Your task to perform on an android device: turn off notifications settings in the gmail app Image 0: 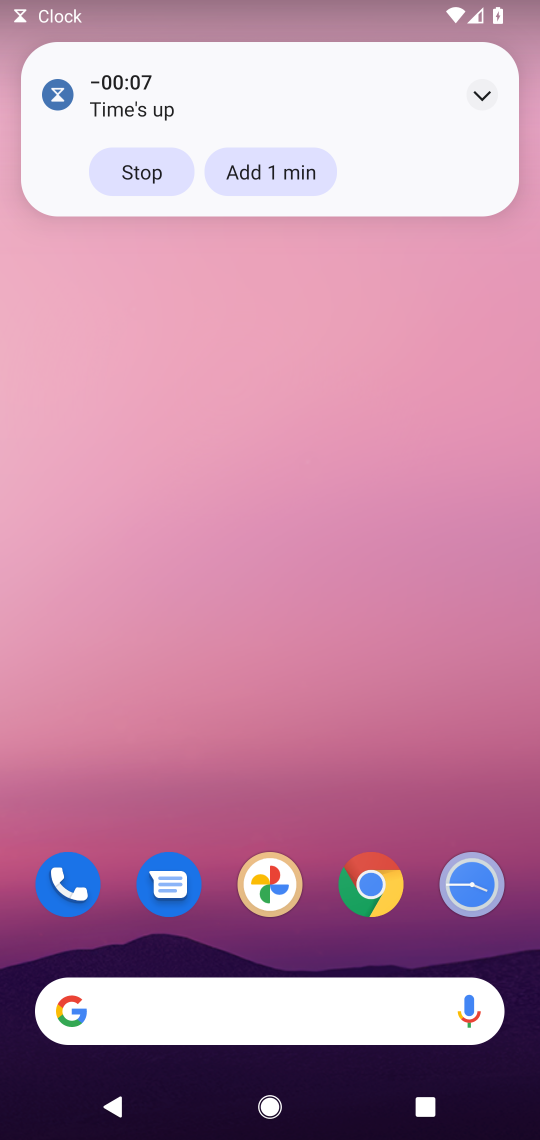
Step 0: click (133, 164)
Your task to perform on an android device: turn off notifications settings in the gmail app Image 1: 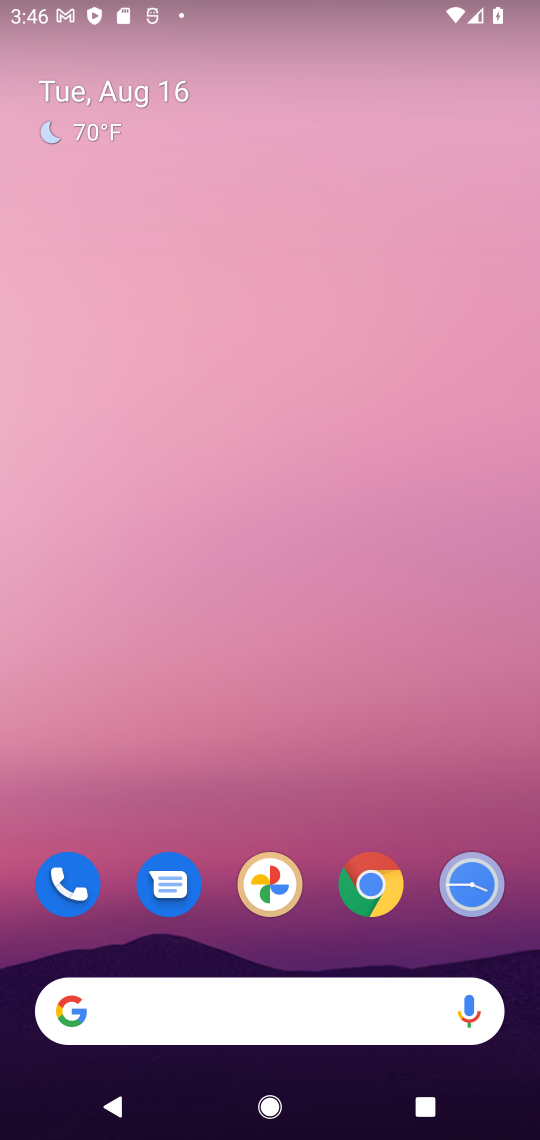
Step 1: drag from (267, 775) to (271, 126)
Your task to perform on an android device: turn off notifications settings in the gmail app Image 2: 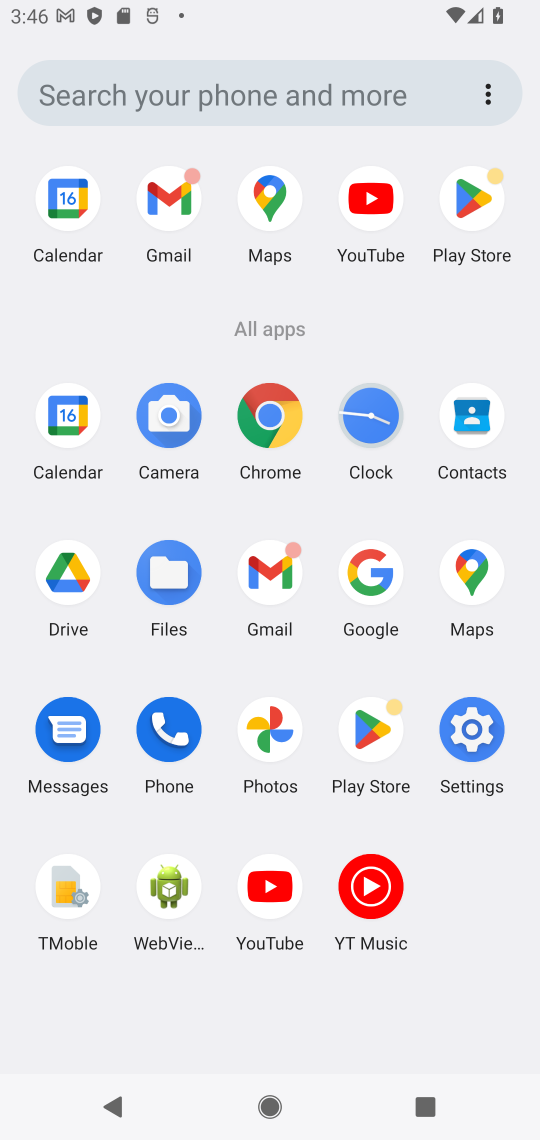
Step 2: click (242, 602)
Your task to perform on an android device: turn off notifications settings in the gmail app Image 3: 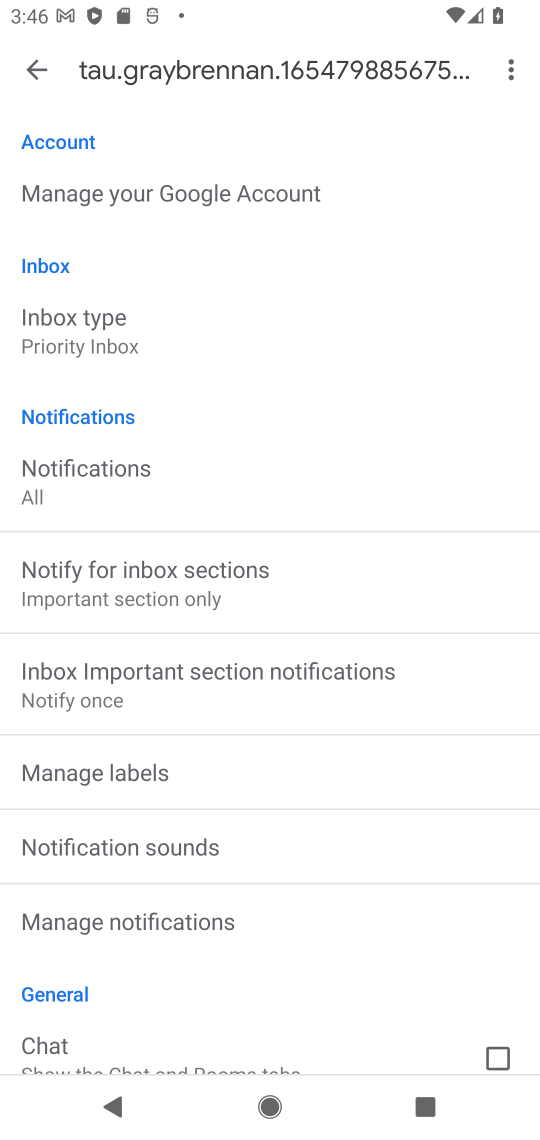
Step 3: click (226, 918)
Your task to perform on an android device: turn off notifications settings in the gmail app Image 4: 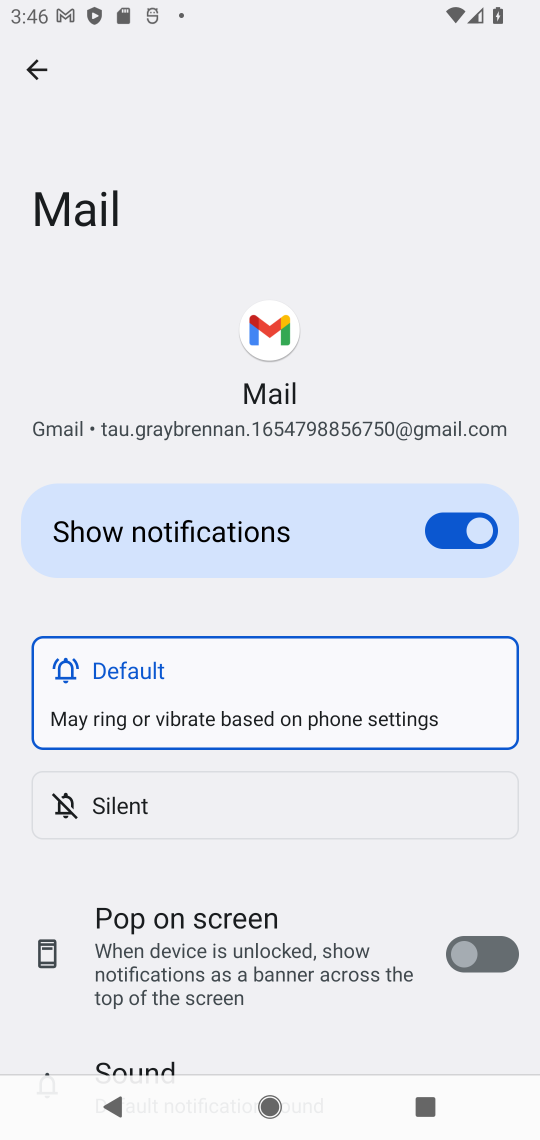
Step 4: click (448, 536)
Your task to perform on an android device: turn off notifications settings in the gmail app Image 5: 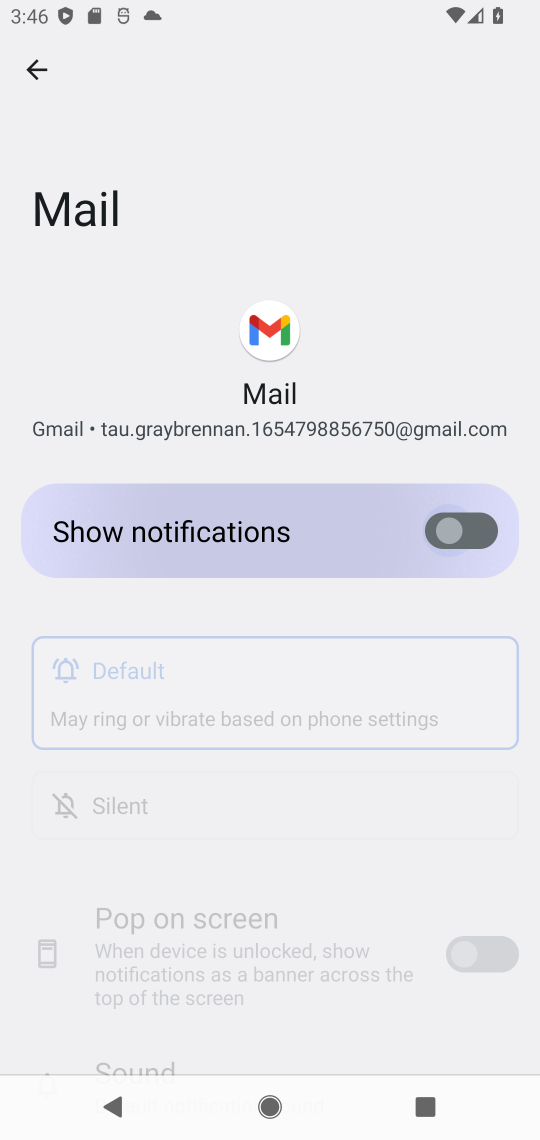
Step 5: task complete